Your task to perform on an android device: Open Youtube and go to the subscriptions tab Image 0: 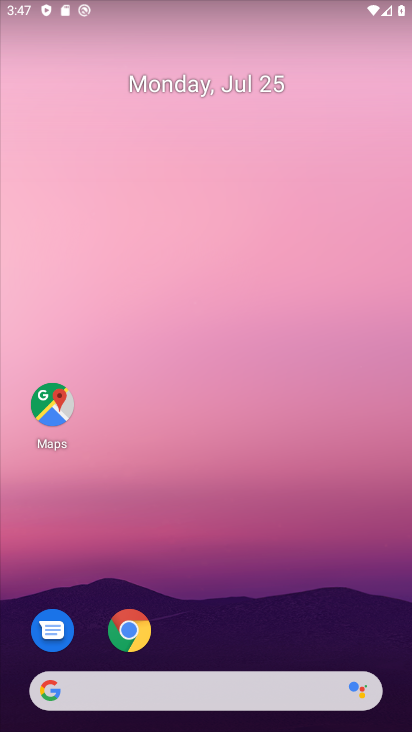
Step 0: drag from (261, 630) to (231, 121)
Your task to perform on an android device: Open Youtube and go to the subscriptions tab Image 1: 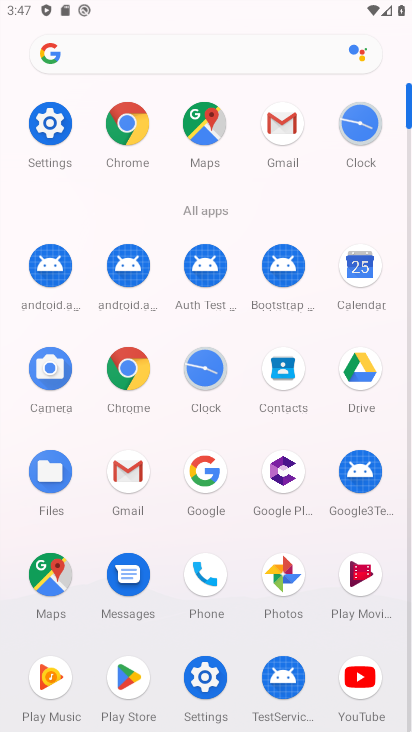
Step 1: click (361, 671)
Your task to perform on an android device: Open Youtube and go to the subscriptions tab Image 2: 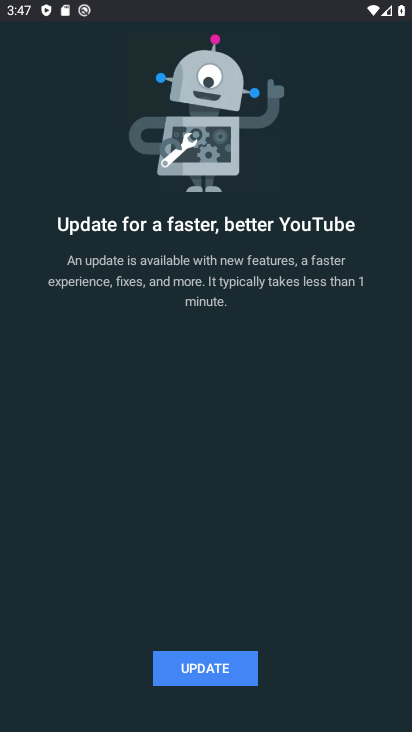
Step 2: click (211, 667)
Your task to perform on an android device: Open Youtube and go to the subscriptions tab Image 3: 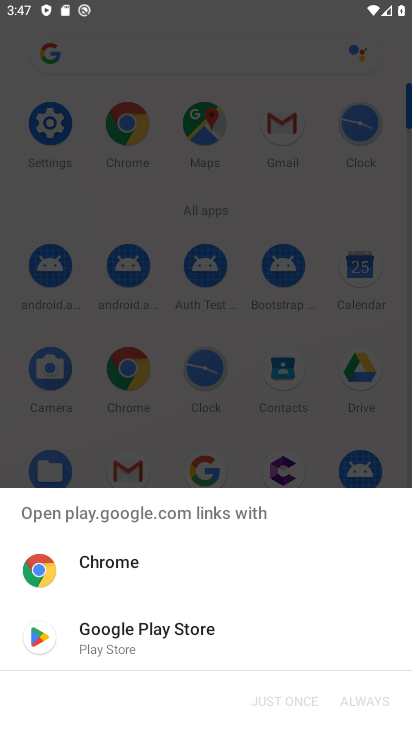
Step 3: click (227, 640)
Your task to perform on an android device: Open Youtube and go to the subscriptions tab Image 4: 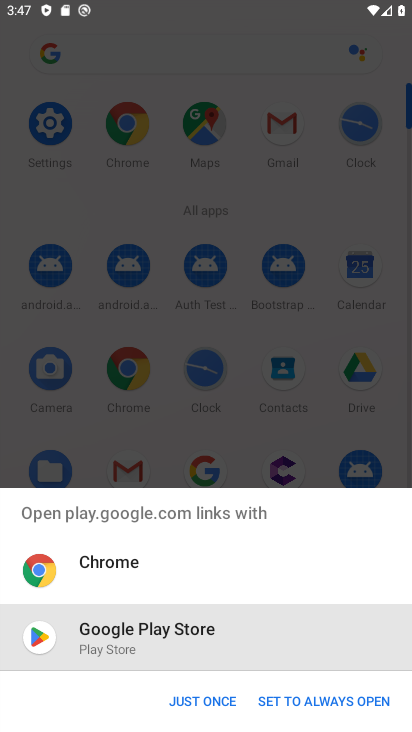
Step 4: click (229, 703)
Your task to perform on an android device: Open Youtube and go to the subscriptions tab Image 5: 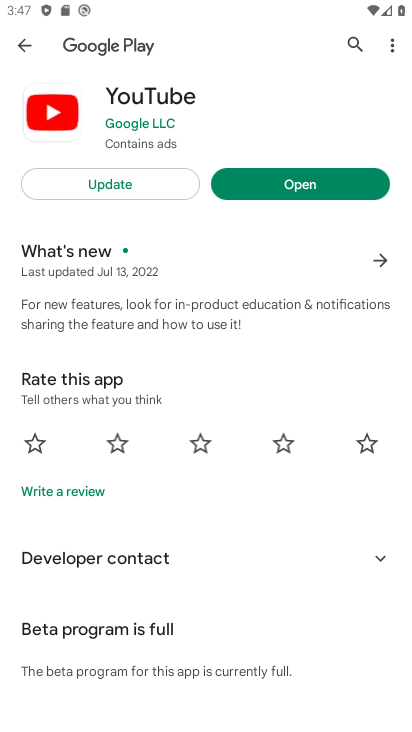
Step 5: click (88, 183)
Your task to perform on an android device: Open Youtube and go to the subscriptions tab Image 6: 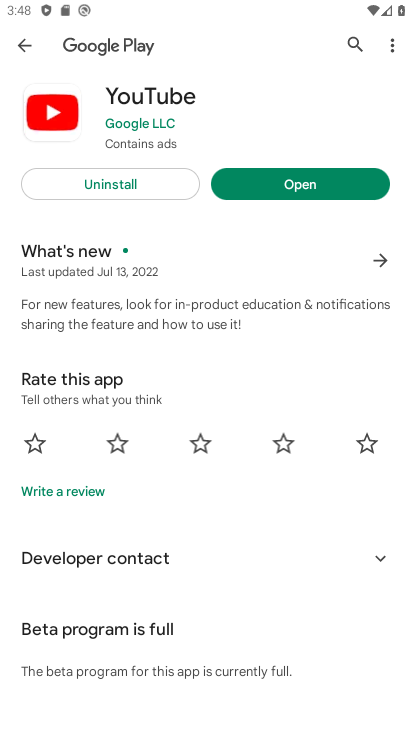
Step 6: click (336, 185)
Your task to perform on an android device: Open Youtube and go to the subscriptions tab Image 7: 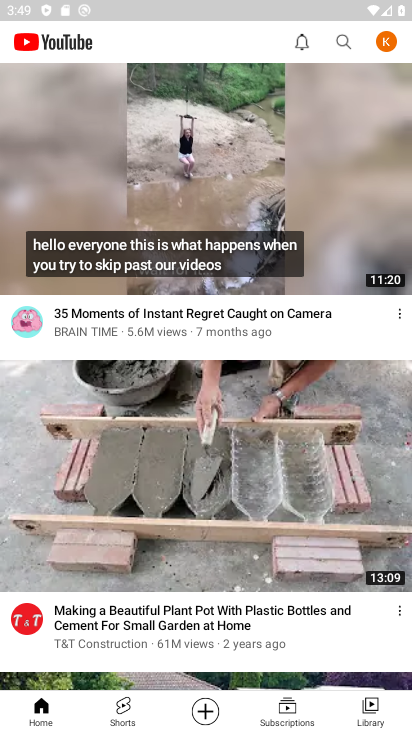
Step 7: click (294, 704)
Your task to perform on an android device: Open Youtube and go to the subscriptions tab Image 8: 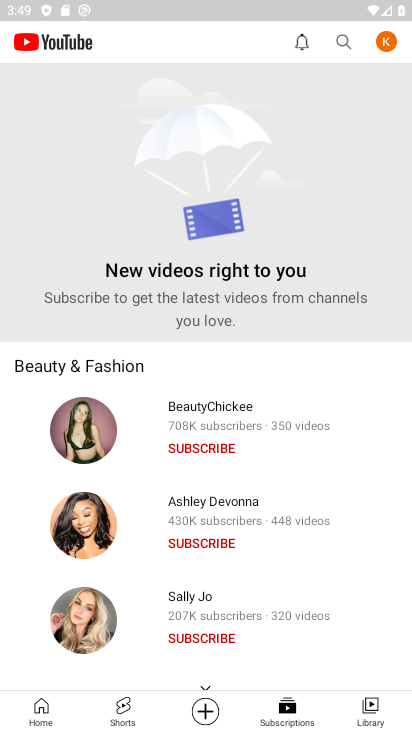
Step 8: task complete